Your task to perform on an android device: open app "Lyft - Rideshare, Bikes, Scooters & Transit" (install if not already installed) and enter user name: "deliberating@gmail.com" and password: "preyed" Image 0: 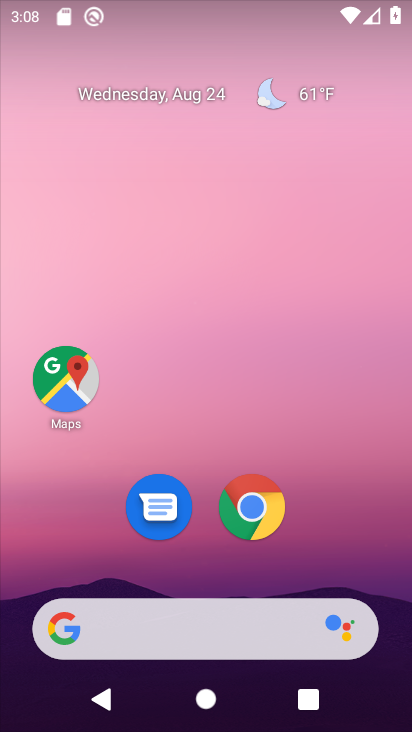
Step 0: drag from (181, 622) to (239, 23)
Your task to perform on an android device: open app "Lyft - Rideshare, Bikes, Scooters & Transit" (install if not already installed) and enter user name: "deliberating@gmail.com" and password: "preyed" Image 1: 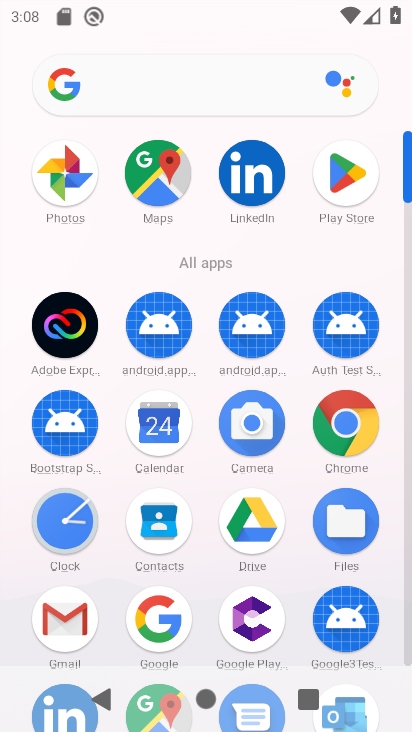
Step 1: click (351, 177)
Your task to perform on an android device: open app "Lyft - Rideshare, Bikes, Scooters & Transit" (install if not already installed) and enter user name: "deliberating@gmail.com" and password: "preyed" Image 2: 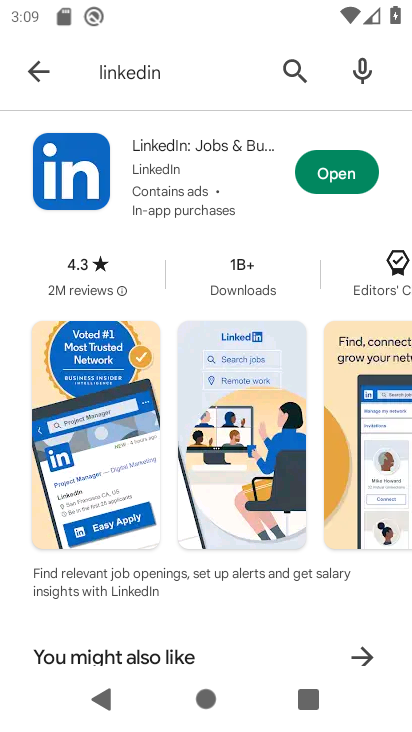
Step 2: press back button
Your task to perform on an android device: open app "Lyft - Rideshare, Bikes, Scooters & Transit" (install if not already installed) and enter user name: "deliberating@gmail.com" and password: "preyed" Image 3: 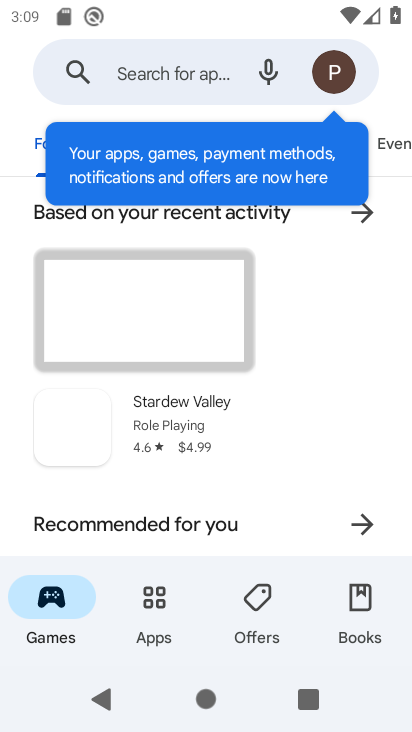
Step 3: click (152, 71)
Your task to perform on an android device: open app "Lyft - Rideshare, Bikes, Scooters & Transit" (install if not already installed) and enter user name: "deliberating@gmail.com" and password: "preyed" Image 4: 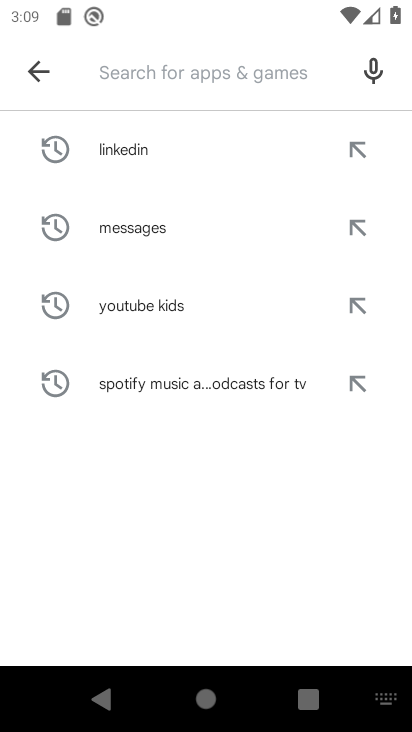
Step 4: type "Lyft - Rideshare, Bikes, Scooters & Transit"
Your task to perform on an android device: open app "Lyft - Rideshare, Bikes, Scooters & Transit" (install if not already installed) and enter user name: "deliberating@gmail.com" and password: "preyed" Image 5: 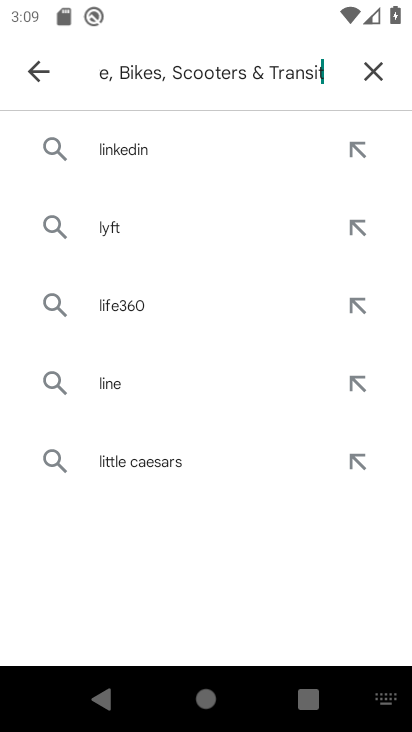
Step 5: type ""
Your task to perform on an android device: open app "Lyft - Rideshare, Bikes, Scooters & Transit" (install if not already installed) and enter user name: "deliberating@gmail.com" and password: "preyed" Image 6: 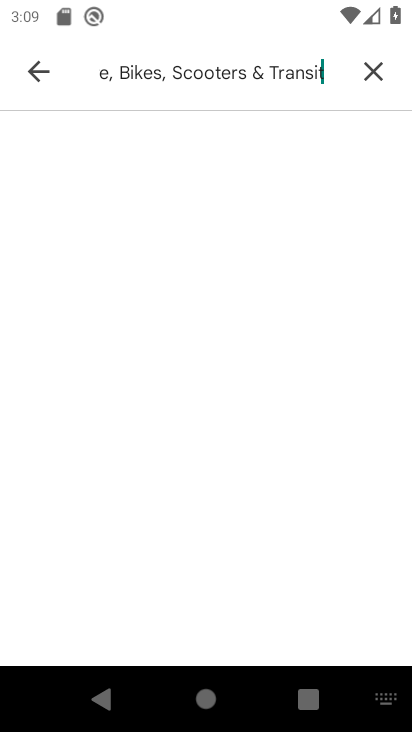
Step 6: task complete